Your task to perform on an android device: Search for seafood restaurants on Google Maps Image 0: 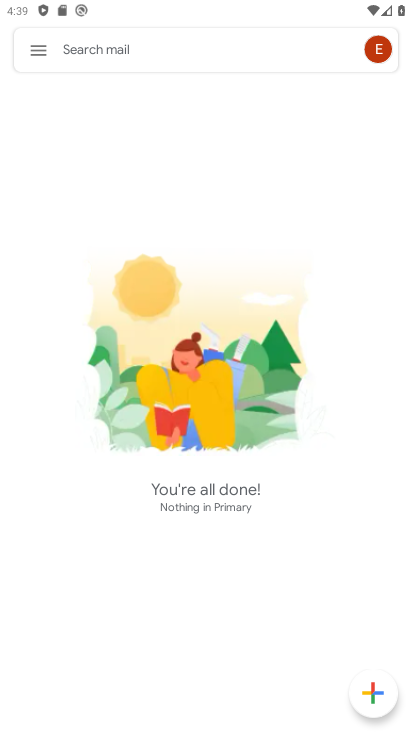
Step 0: press home button
Your task to perform on an android device: Search for seafood restaurants on Google Maps Image 1: 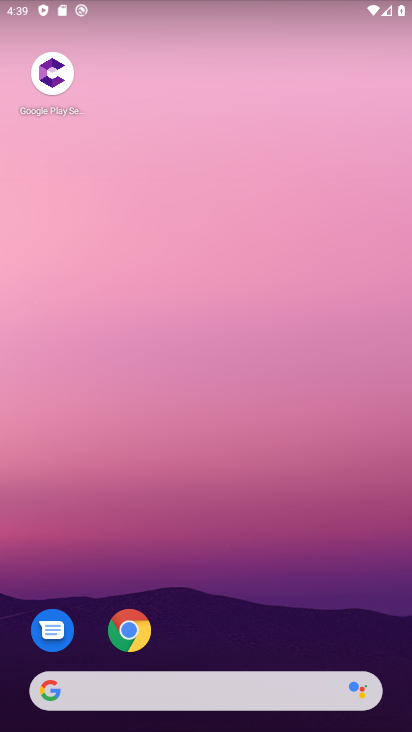
Step 1: drag from (203, 605) to (217, 196)
Your task to perform on an android device: Search for seafood restaurants on Google Maps Image 2: 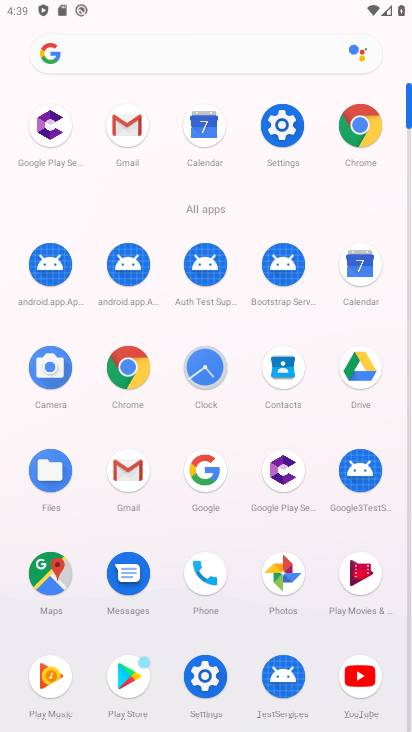
Step 2: click (48, 572)
Your task to perform on an android device: Search for seafood restaurants on Google Maps Image 3: 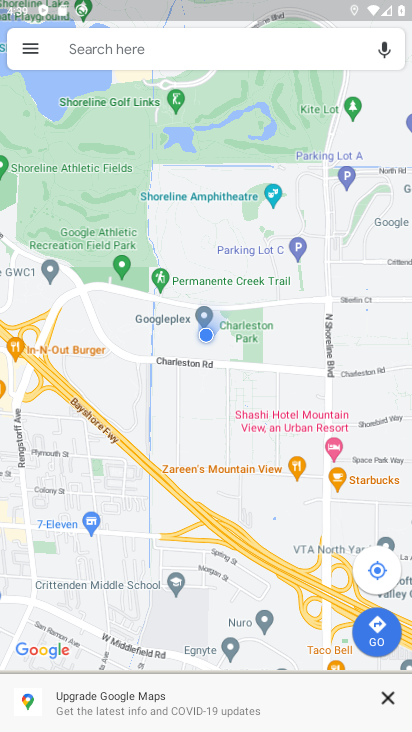
Step 3: click (177, 54)
Your task to perform on an android device: Search for seafood restaurants on Google Maps Image 4: 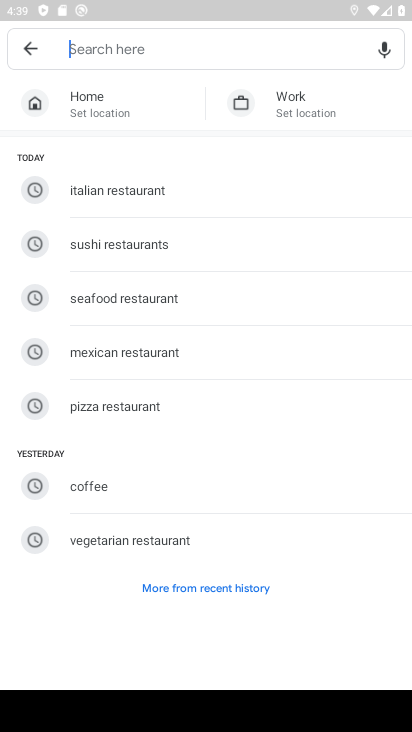
Step 4: type " seafood restaurants "
Your task to perform on an android device: Search for seafood restaurants on Google Maps Image 5: 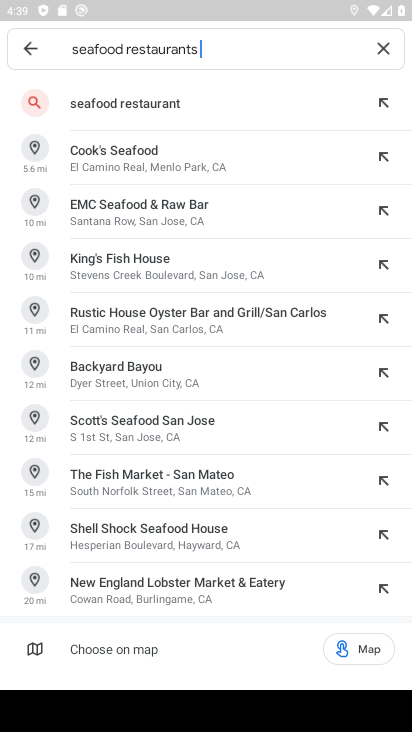
Step 5: click (165, 80)
Your task to perform on an android device: Search for seafood restaurants on Google Maps Image 6: 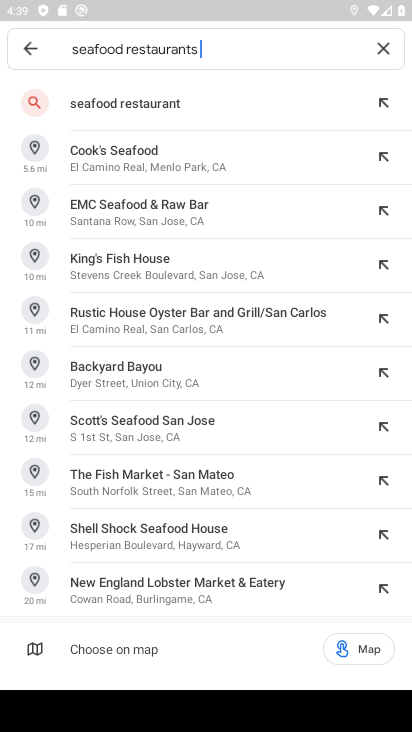
Step 6: click (167, 103)
Your task to perform on an android device: Search for seafood restaurants on Google Maps Image 7: 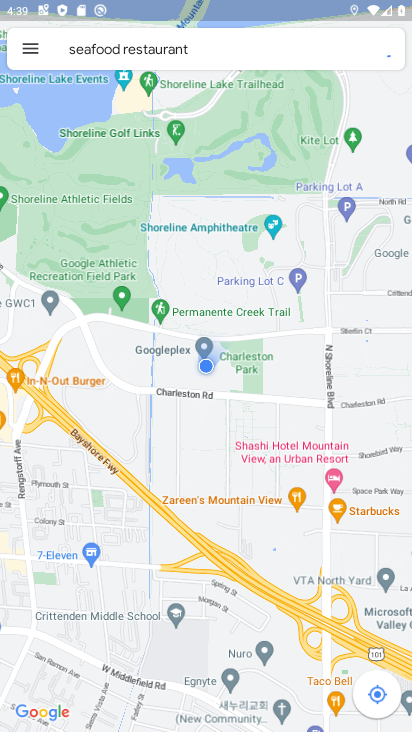
Step 7: task complete